Your task to perform on an android device: star an email in the gmail app Image 0: 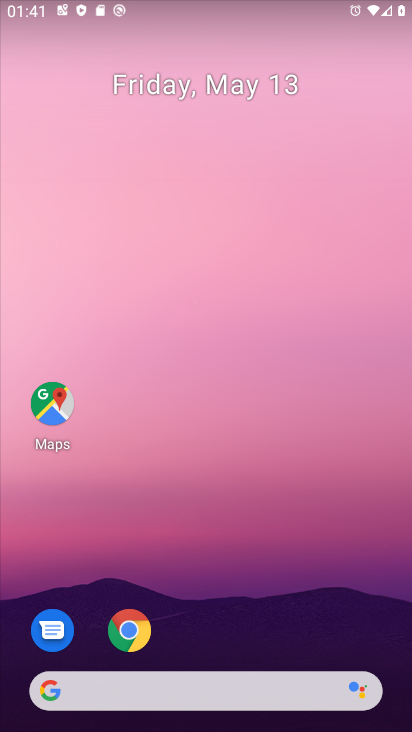
Step 0: drag from (204, 719) to (274, 253)
Your task to perform on an android device: star an email in the gmail app Image 1: 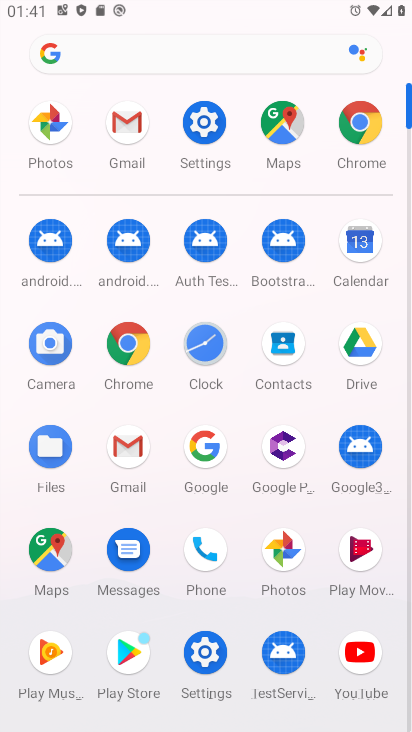
Step 1: click (126, 456)
Your task to perform on an android device: star an email in the gmail app Image 2: 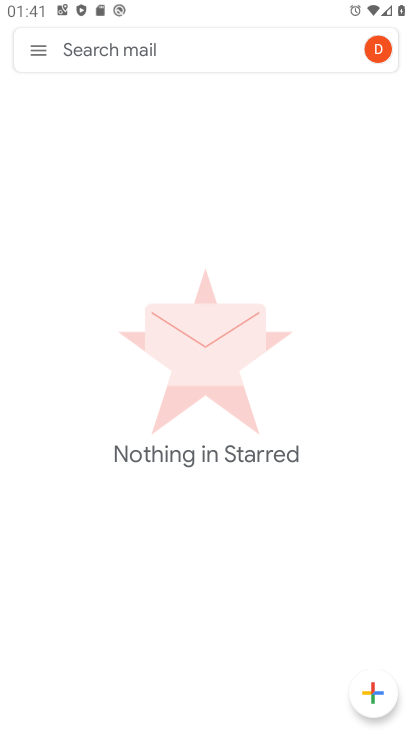
Step 2: click (36, 62)
Your task to perform on an android device: star an email in the gmail app Image 3: 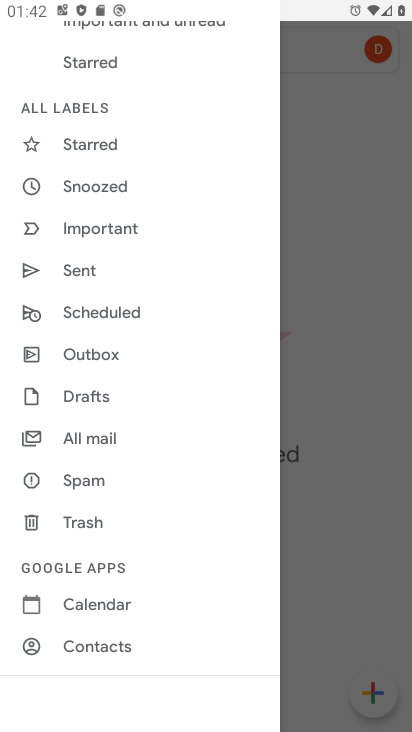
Step 3: click (99, 143)
Your task to perform on an android device: star an email in the gmail app Image 4: 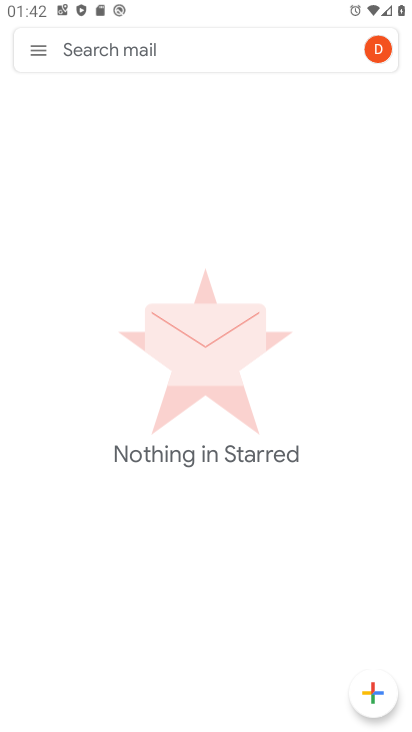
Step 4: task complete